Your task to perform on an android device: When is my next meeting? Image 0: 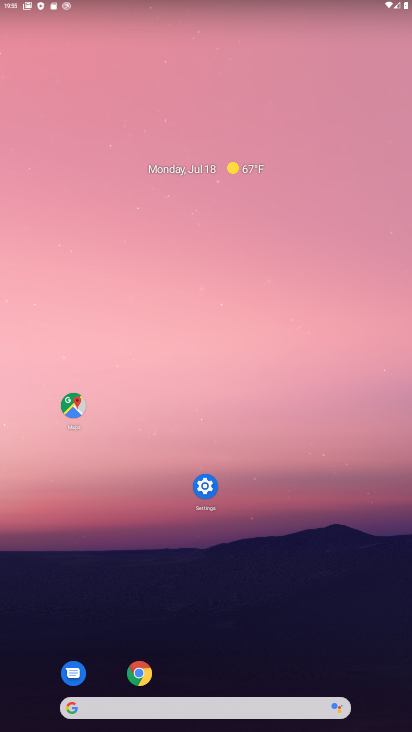
Step 0: drag from (239, 291) to (226, 78)
Your task to perform on an android device: When is my next meeting? Image 1: 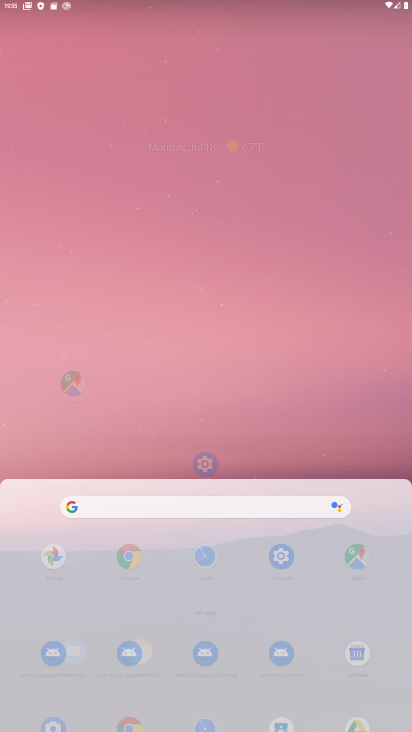
Step 1: drag from (240, 477) to (181, 5)
Your task to perform on an android device: When is my next meeting? Image 2: 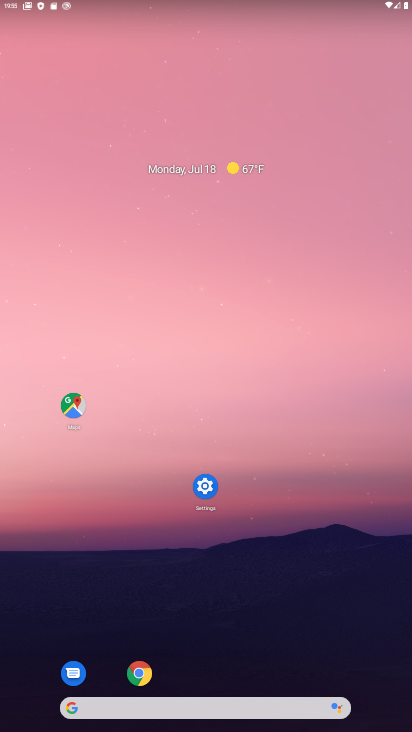
Step 2: drag from (231, 611) to (203, 20)
Your task to perform on an android device: When is my next meeting? Image 3: 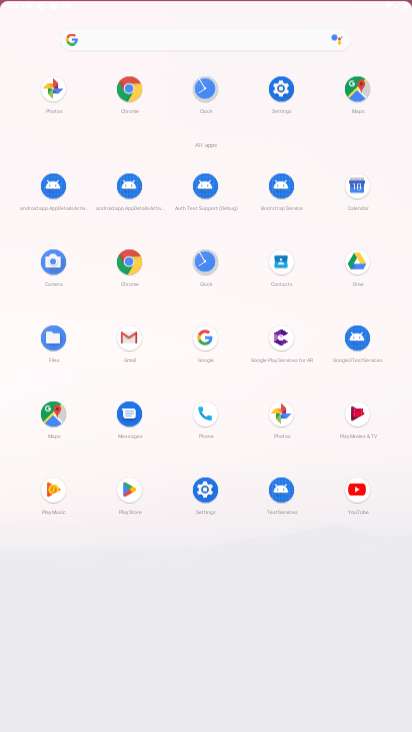
Step 3: drag from (194, 510) to (202, 15)
Your task to perform on an android device: When is my next meeting? Image 4: 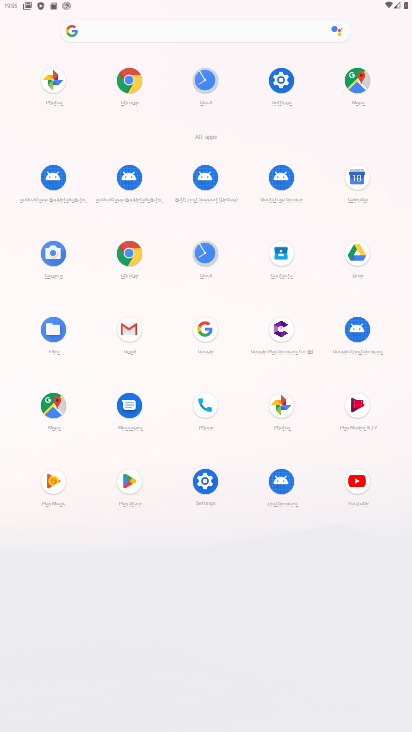
Step 4: click (355, 176)
Your task to perform on an android device: When is my next meeting? Image 5: 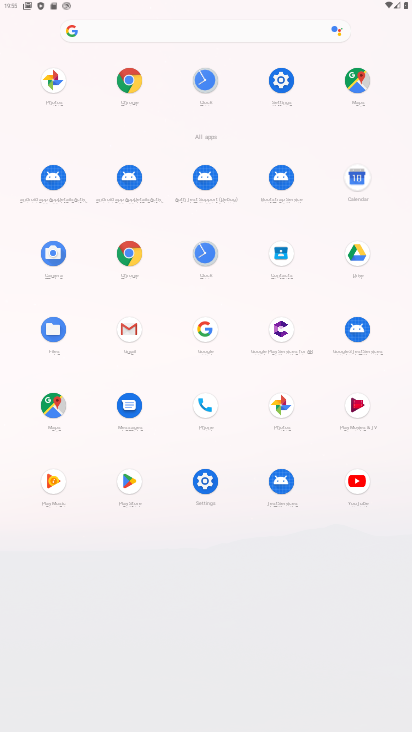
Step 5: click (356, 176)
Your task to perform on an android device: When is my next meeting? Image 6: 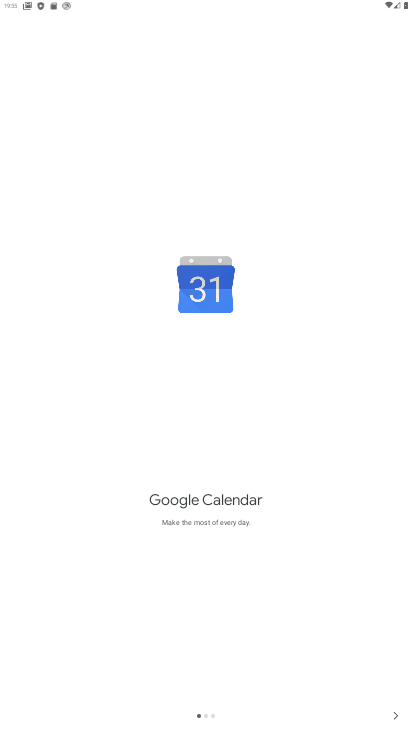
Step 6: drag from (219, 624) to (173, 296)
Your task to perform on an android device: When is my next meeting? Image 7: 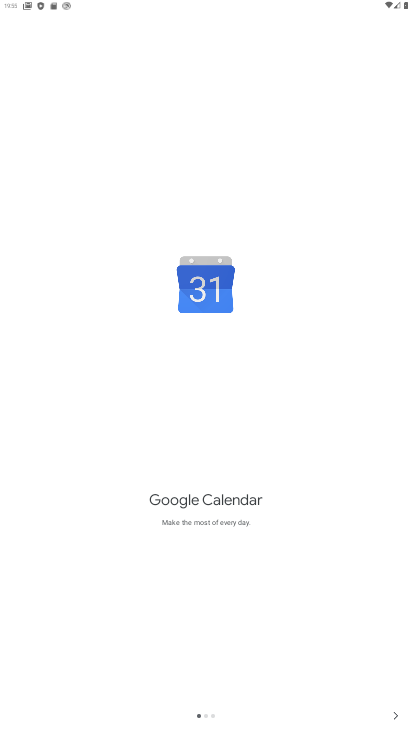
Step 7: click (391, 717)
Your task to perform on an android device: When is my next meeting? Image 8: 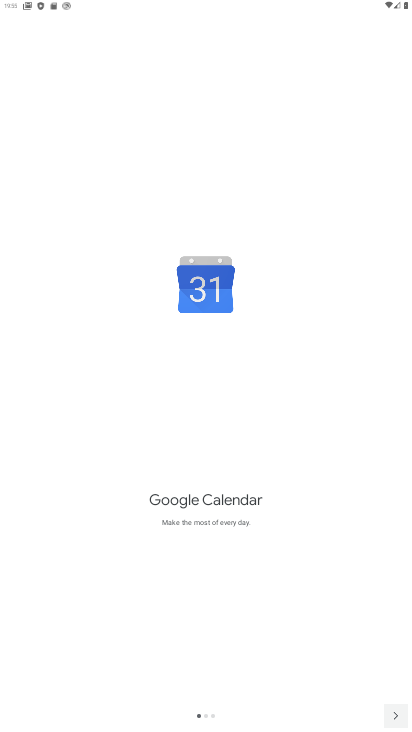
Step 8: click (391, 717)
Your task to perform on an android device: When is my next meeting? Image 9: 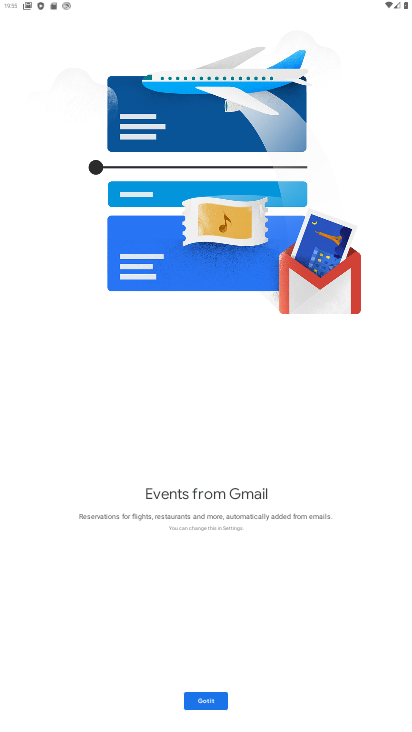
Step 9: click (202, 706)
Your task to perform on an android device: When is my next meeting? Image 10: 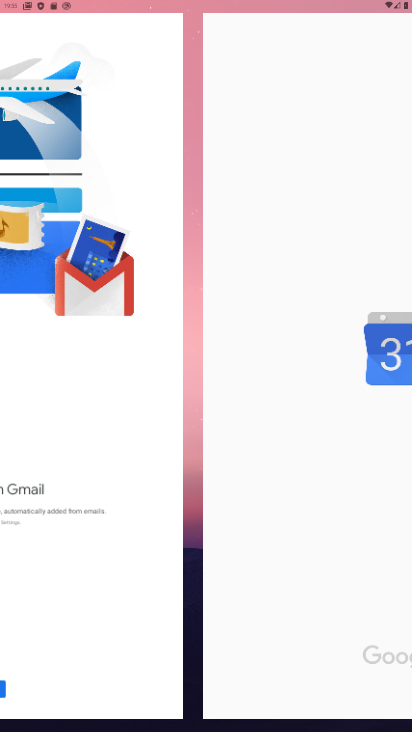
Step 10: click (202, 705)
Your task to perform on an android device: When is my next meeting? Image 11: 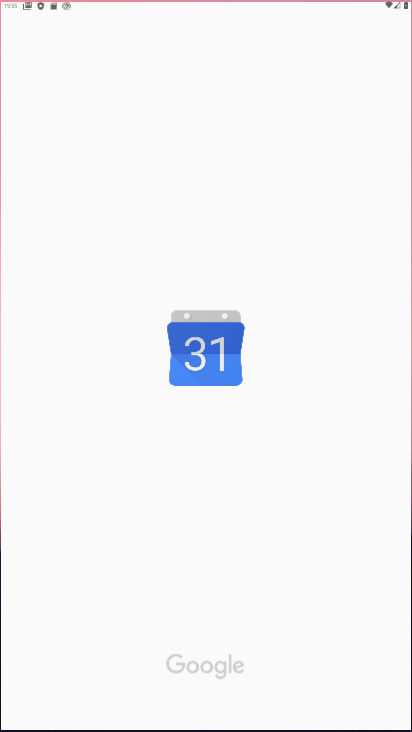
Step 11: click (202, 705)
Your task to perform on an android device: When is my next meeting? Image 12: 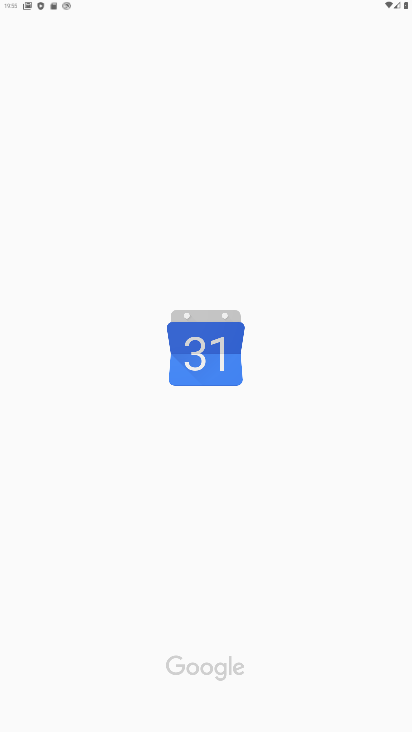
Step 12: click (202, 705)
Your task to perform on an android device: When is my next meeting? Image 13: 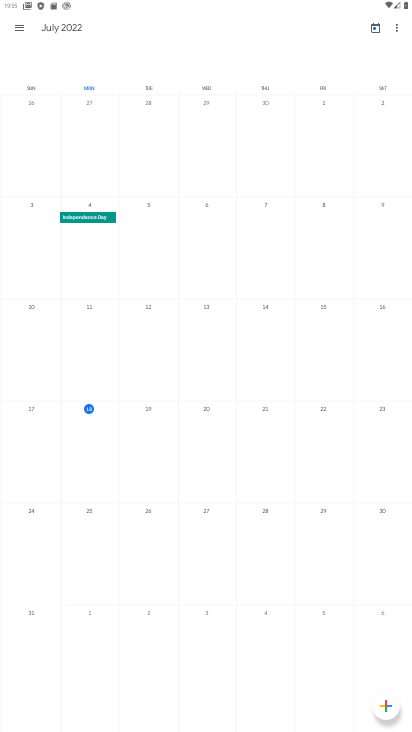
Step 13: task complete